Your task to perform on an android device: Open notification settings Image 0: 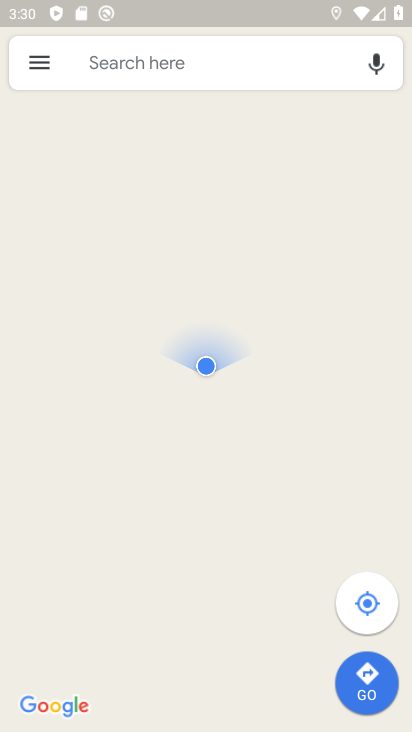
Step 0: press home button
Your task to perform on an android device: Open notification settings Image 1: 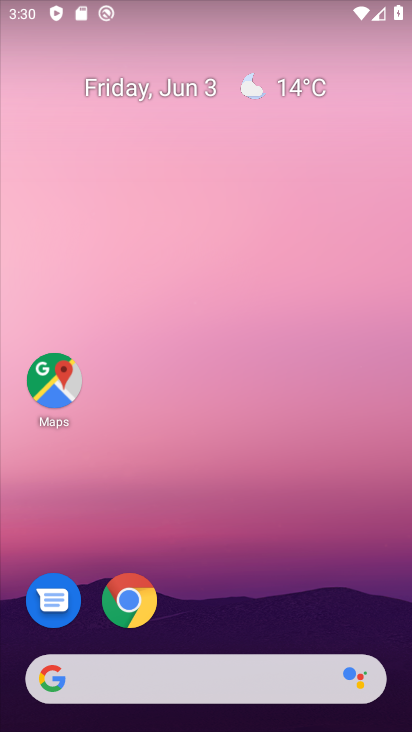
Step 1: drag from (150, 451) to (346, 122)
Your task to perform on an android device: Open notification settings Image 2: 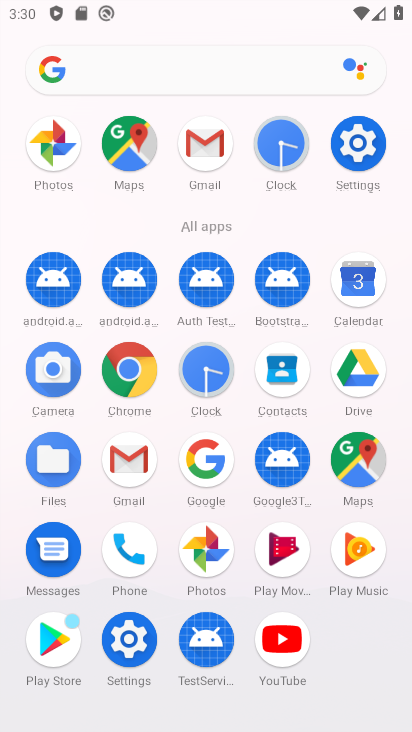
Step 2: click (337, 152)
Your task to perform on an android device: Open notification settings Image 3: 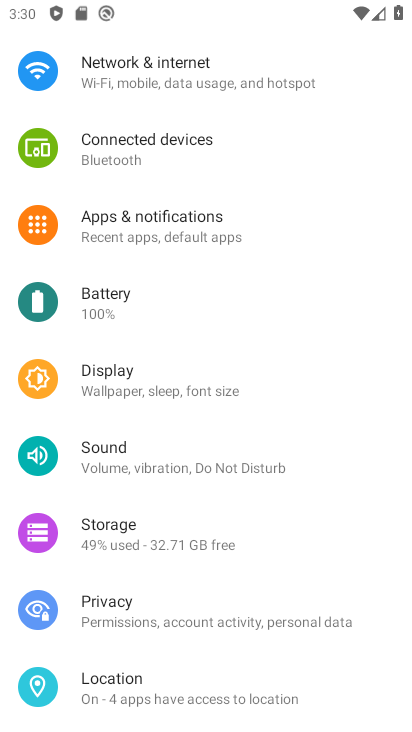
Step 3: click (147, 223)
Your task to perform on an android device: Open notification settings Image 4: 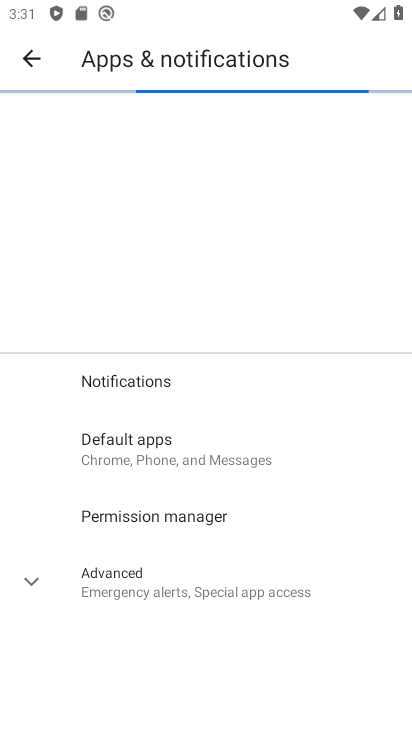
Step 4: click (182, 218)
Your task to perform on an android device: Open notification settings Image 5: 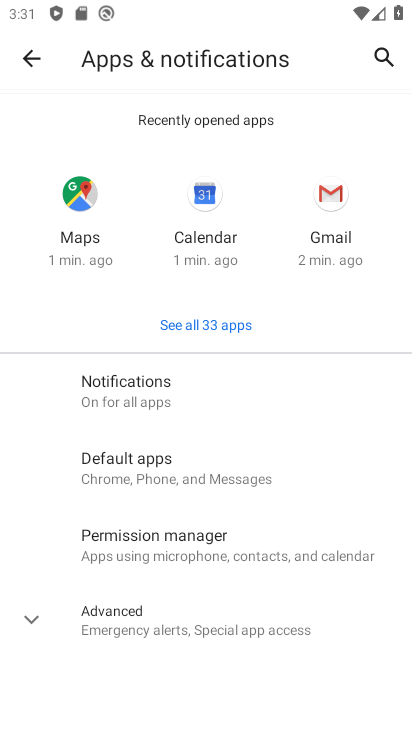
Step 5: task complete